Your task to perform on an android device: Go to network settings Image 0: 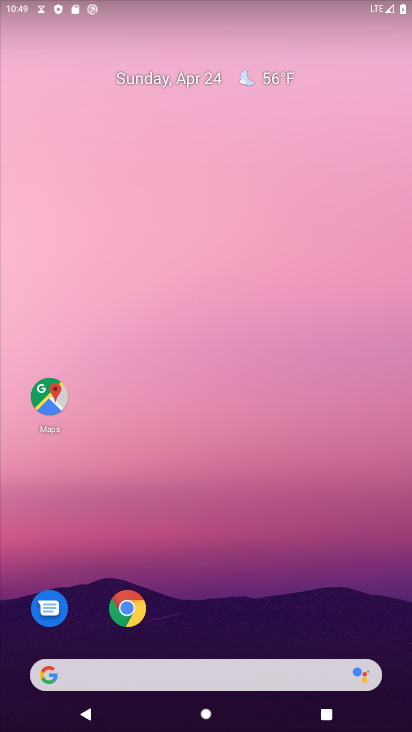
Step 0: drag from (220, 642) to (103, 101)
Your task to perform on an android device: Go to network settings Image 1: 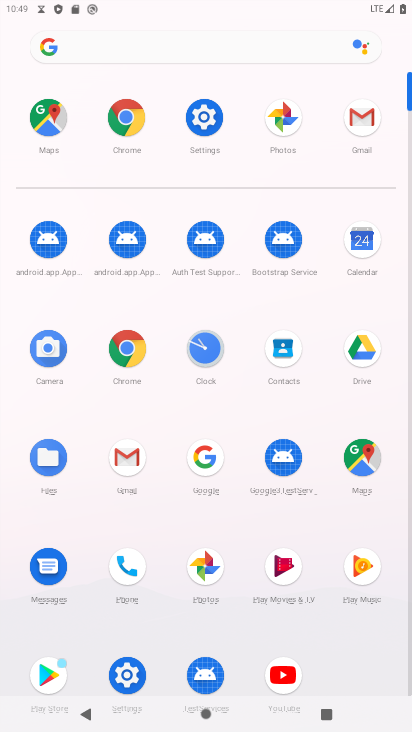
Step 1: click (201, 128)
Your task to perform on an android device: Go to network settings Image 2: 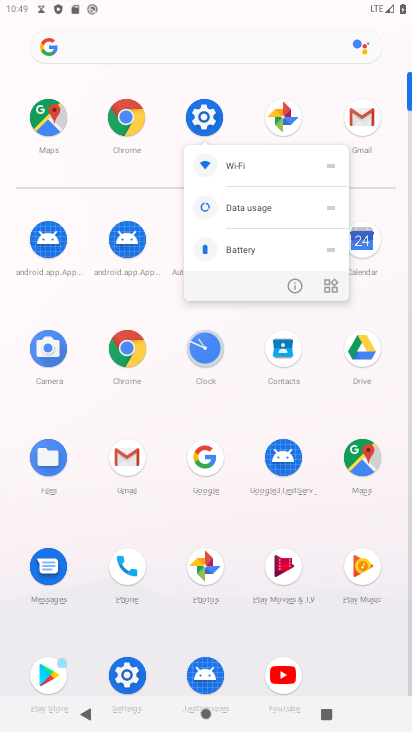
Step 2: click (195, 116)
Your task to perform on an android device: Go to network settings Image 3: 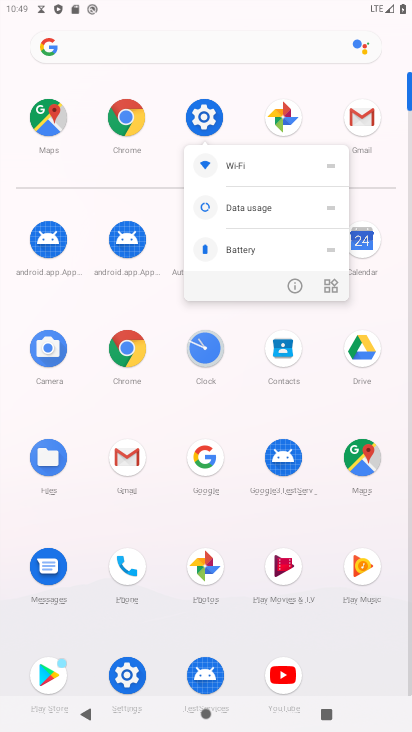
Step 3: click (201, 100)
Your task to perform on an android device: Go to network settings Image 4: 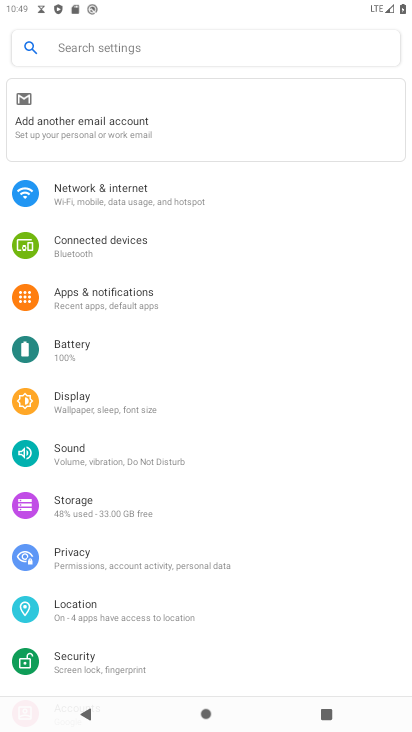
Step 4: click (96, 187)
Your task to perform on an android device: Go to network settings Image 5: 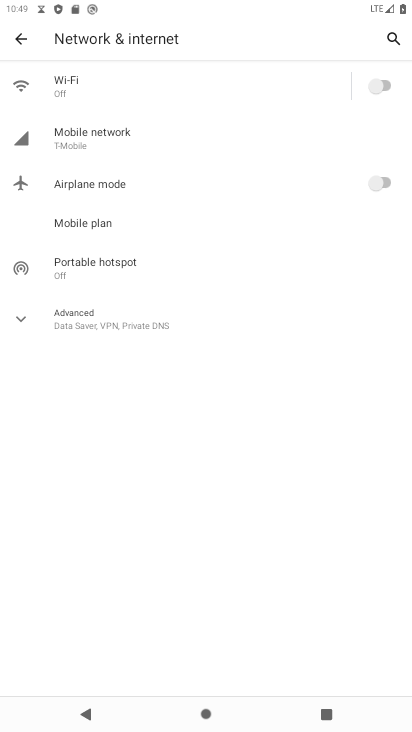
Step 5: click (112, 130)
Your task to perform on an android device: Go to network settings Image 6: 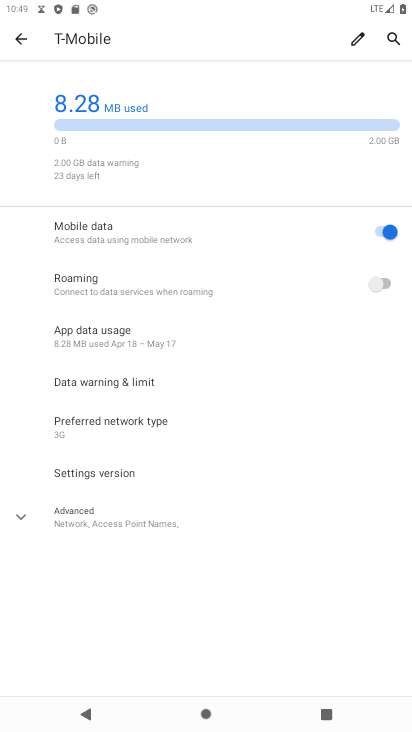
Step 6: task complete